Your task to perform on an android device: See recent photos Image 0: 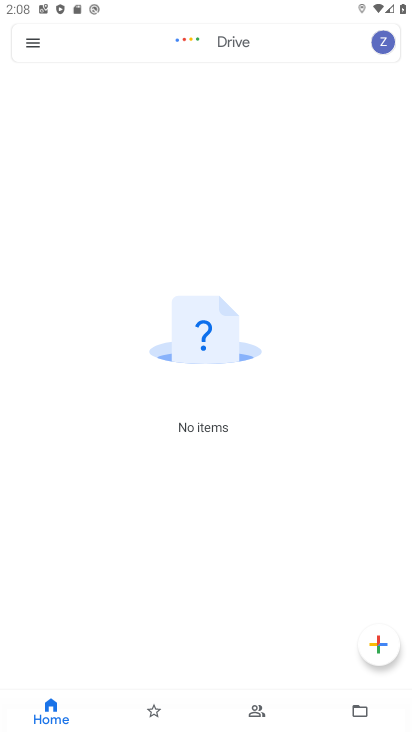
Step 0: press home button
Your task to perform on an android device: See recent photos Image 1: 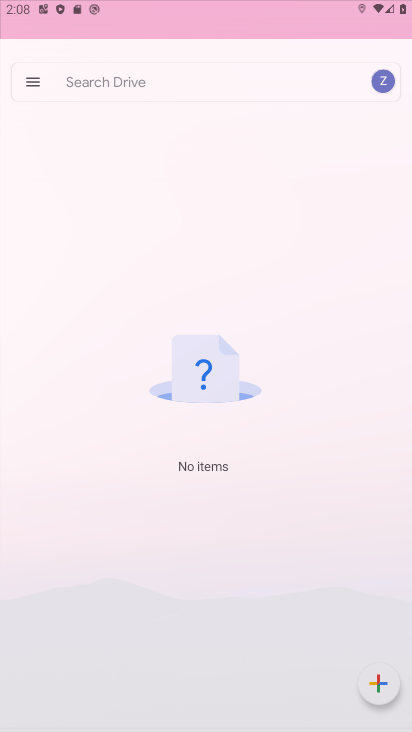
Step 1: drag from (365, 661) to (252, 35)
Your task to perform on an android device: See recent photos Image 2: 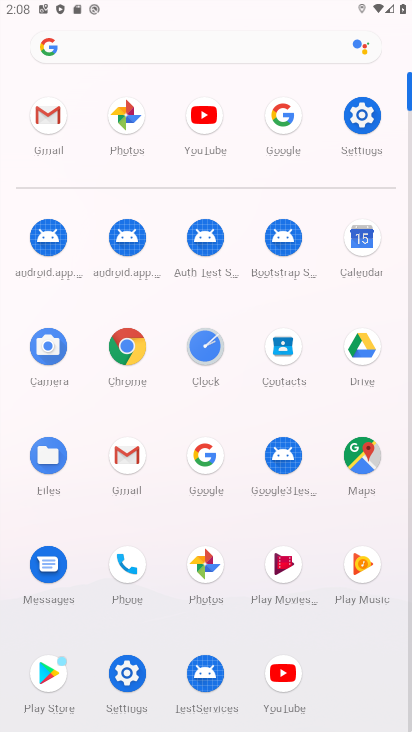
Step 2: click (199, 561)
Your task to perform on an android device: See recent photos Image 3: 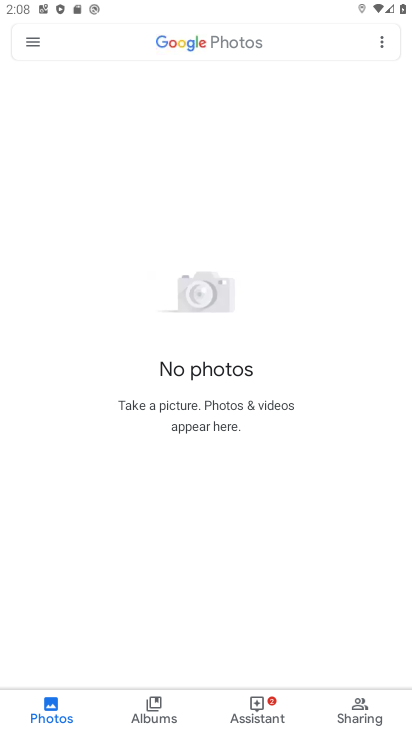
Step 3: task complete